Your task to perform on an android device: turn off smart reply in the gmail app Image 0: 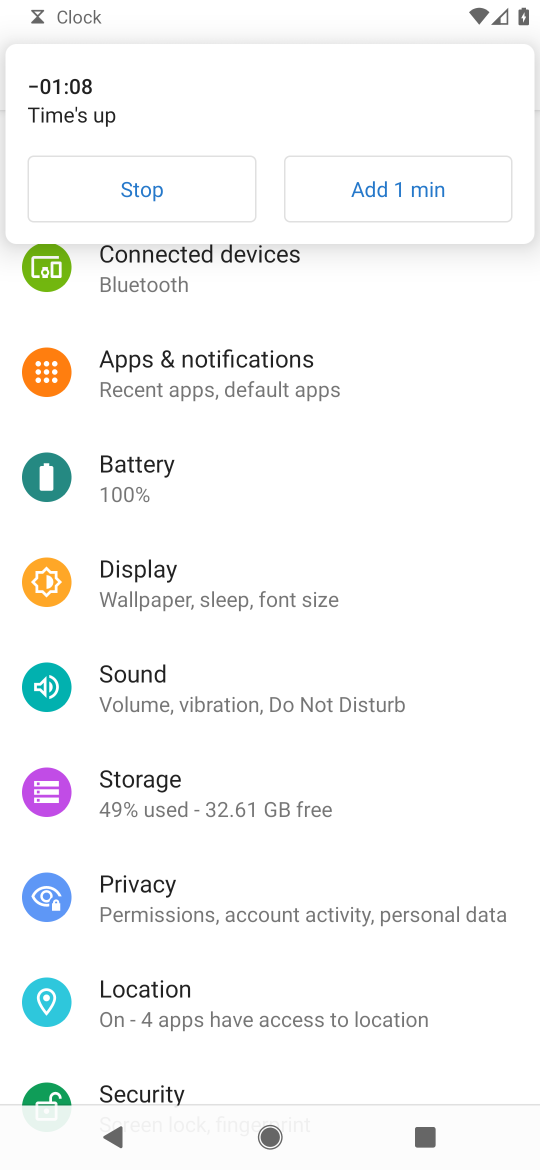
Step 0: press home button
Your task to perform on an android device: turn off smart reply in the gmail app Image 1: 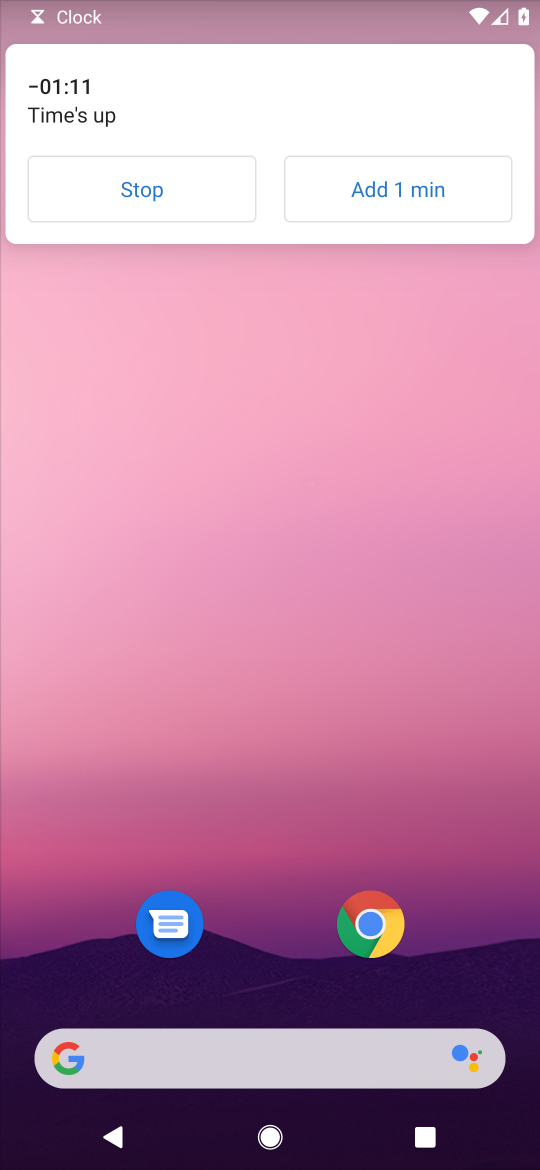
Step 1: drag from (196, 1041) to (82, 347)
Your task to perform on an android device: turn off smart reply in the gmail app Image 2: 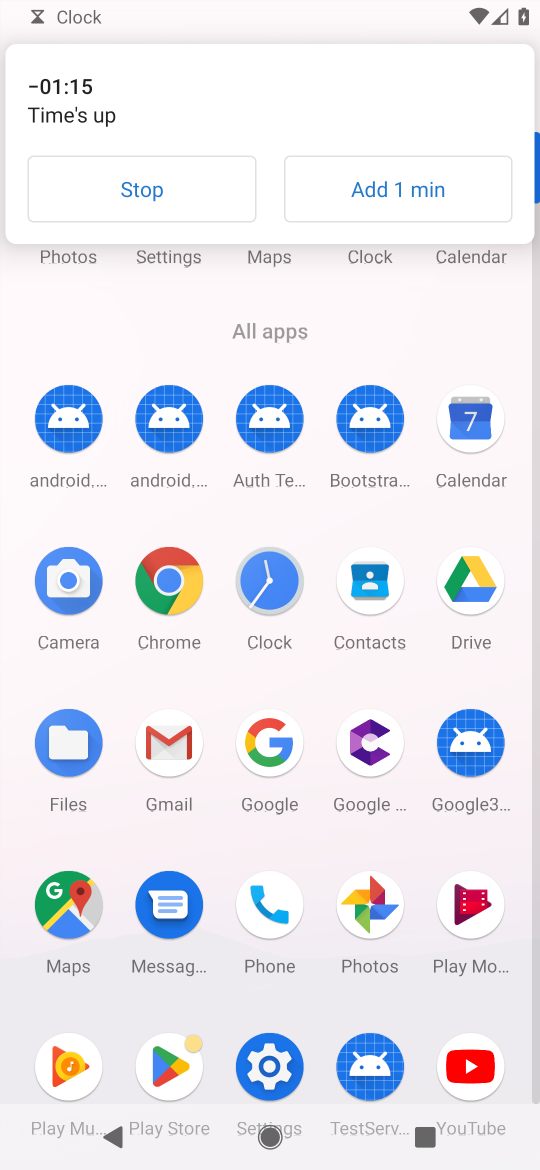
Step 2: click (164, 765)
Your task to perform on an android device: turn off smart reply in the gmail app Image 3: 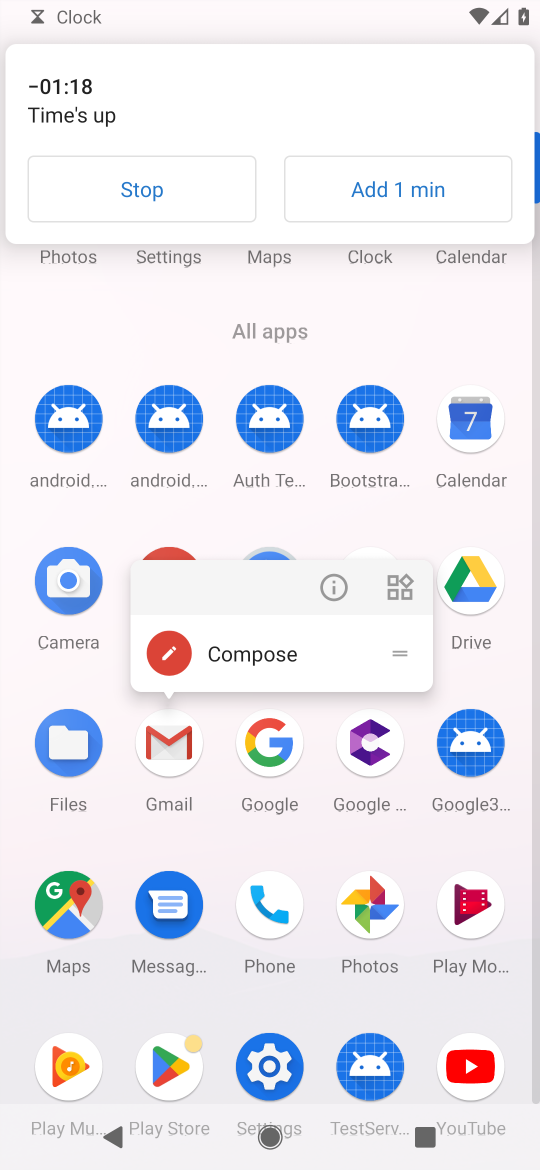
Step 3: click (163, 753)
Your task to perform on an android device: turn off smart reply in the gmail app Image 4: 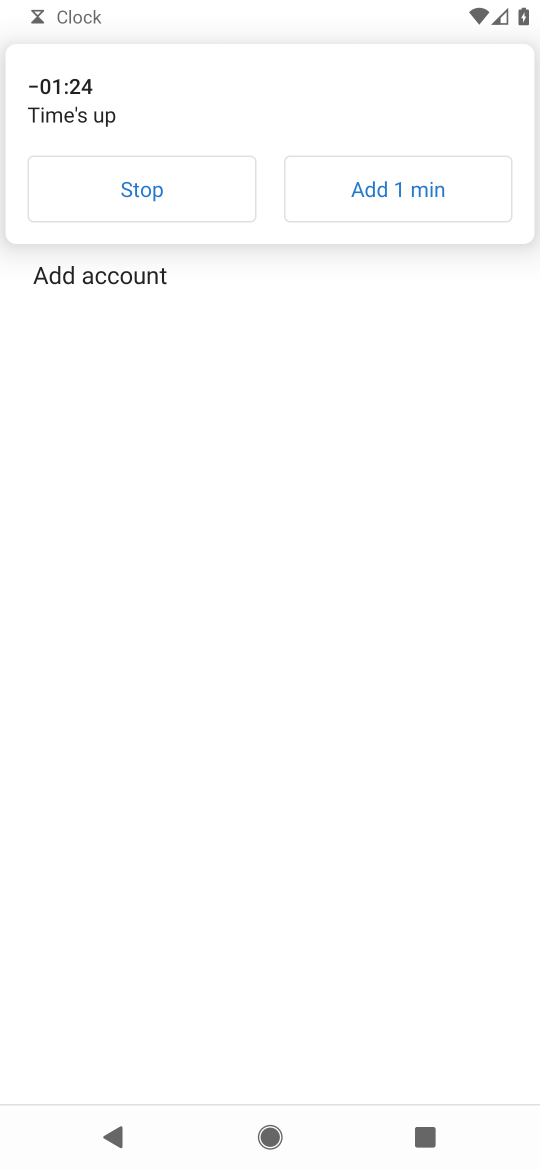
Step 4: click (174, 191)
Your task to perform on an android device: turn off smart reply in the gmail app Image 5: 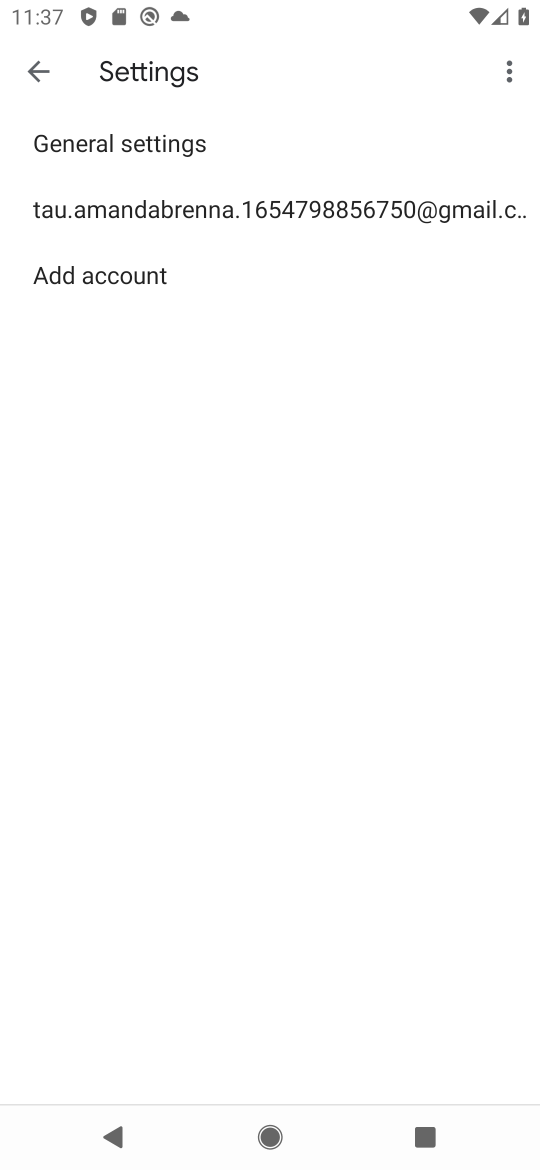
Step 5: click (131, 199)
Your task to perform on an android device: turn off smart reply in the gmail app Image 6: 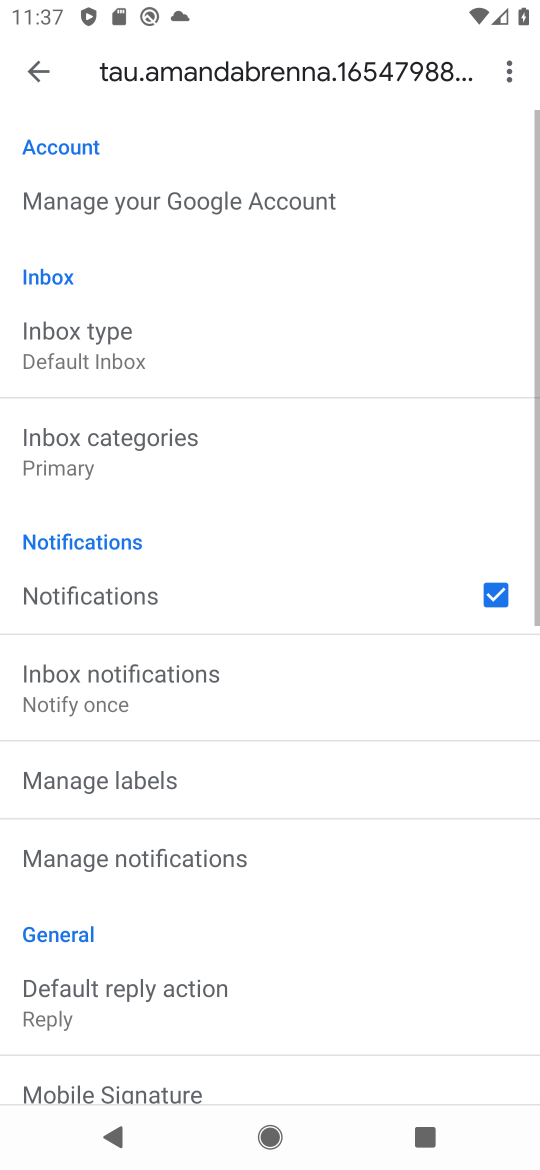
Step 6: drag from (180, 989) to (120, 316)
Your task to perform on an android device: turn off smart reply in the gmail app Image 7: 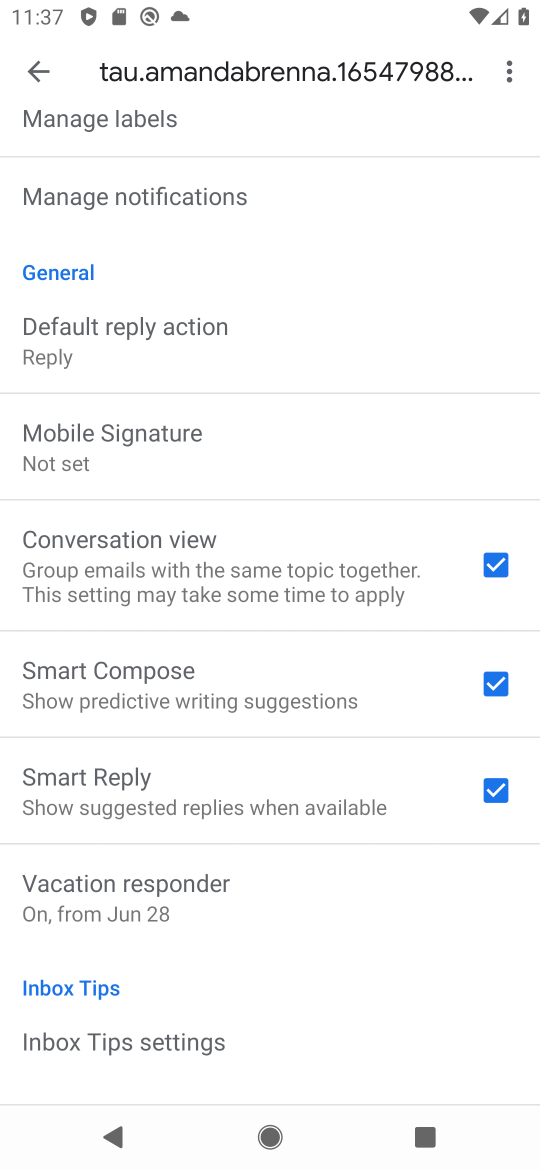
Step 7: click (496, 792)
Your task to perform on an android device: turn off smart reply in the gmail app Image 8: 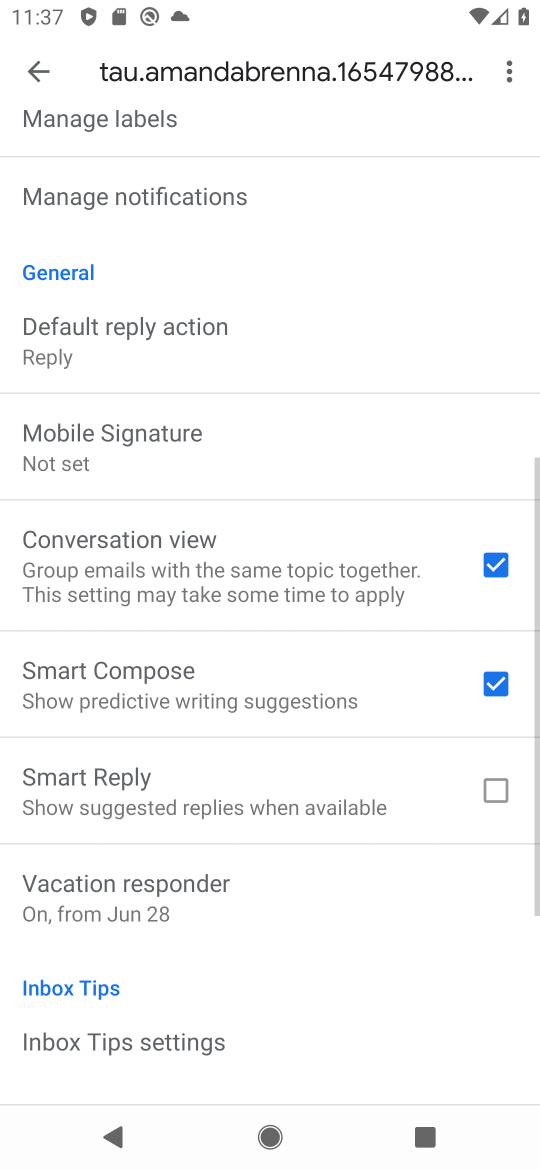
Step 8: task complete